Your task to perform on an android device: What's on my calendar tomorrow? Image 0: 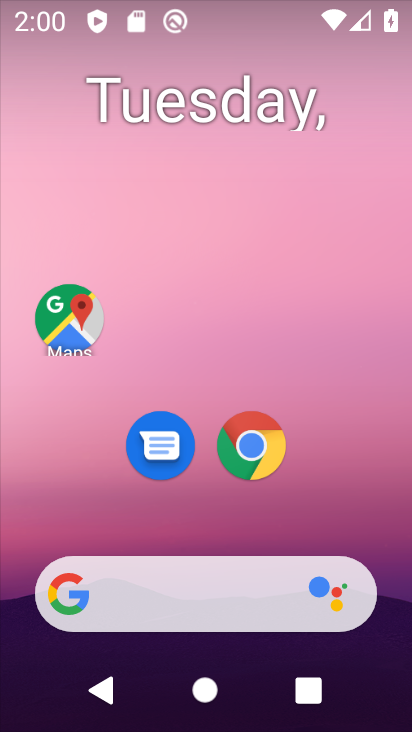
Step 0: click (182, 80)
Your task to perform on an android device: What's on my calendar tomorrow? Image 1: 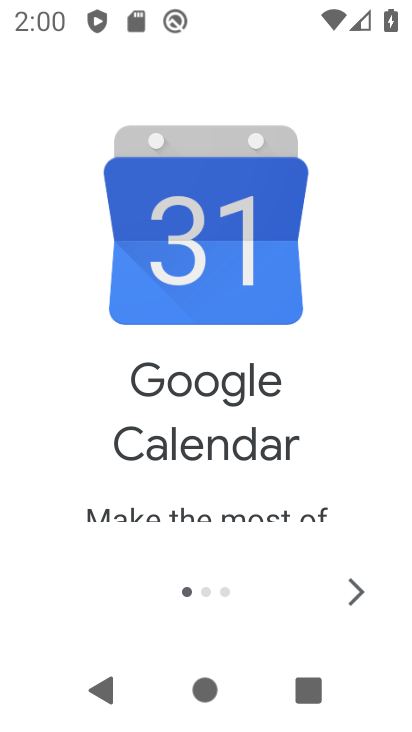
Step 1: click (360, 608)
Your task to perform on an android device: What's on my calendar tomorrow? Image 2: 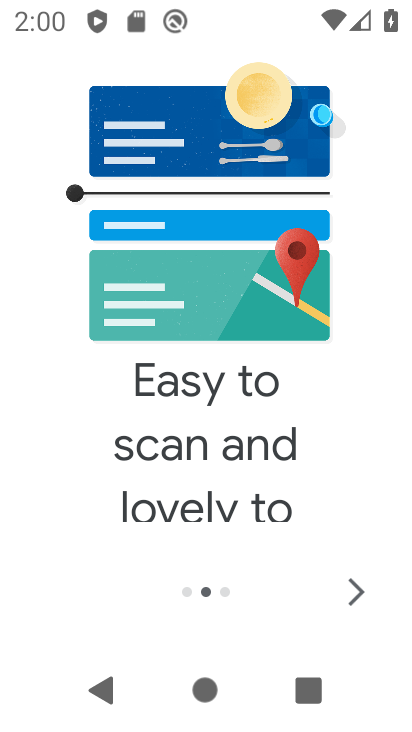
Step 2: click (360, 608)
Your task to perform on an android device: What's on my calendar tomorrow? Image 3: 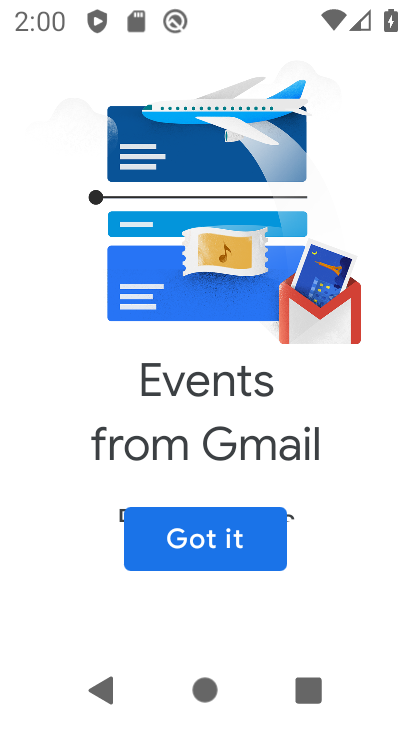
Step 3: click (253, 558)
Your task to perform on an android device: What's on my calendar tomorrow? Image 4: 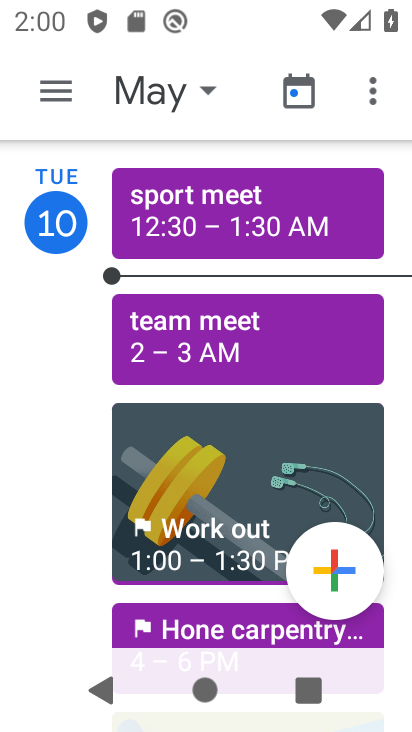
Step 4: click (219, 107)
Your task to perform on an android device: What's on my calendar tomorrow? Image 5: 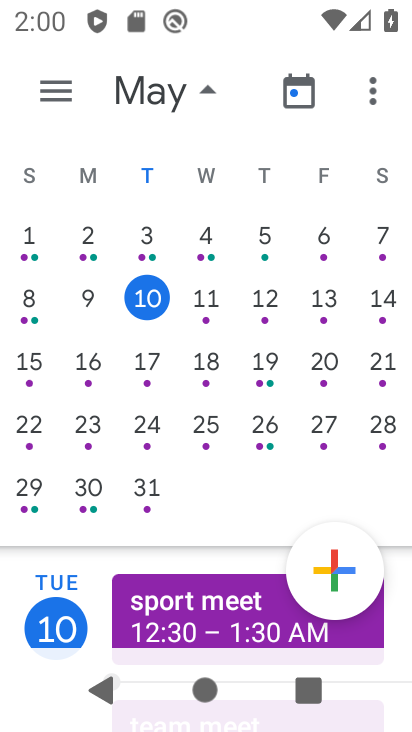
Step 5: click (225, 298)
Your task to perform on an android device: What's on my calendar tomorrow? Image 6: 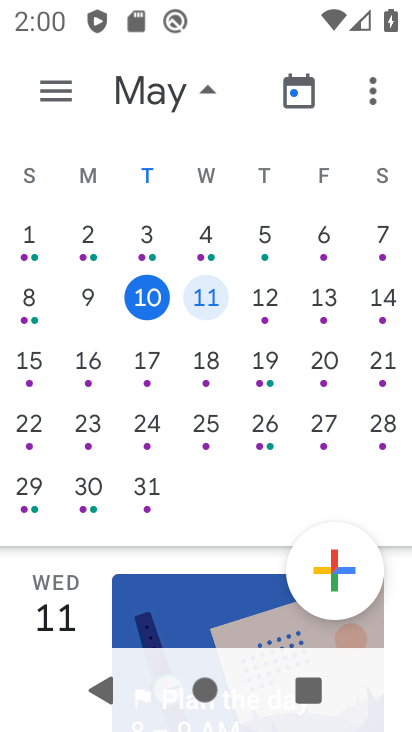
Step 6: task complete